Your task to perform on an android device: Do I have any events tomorrow? Image 0: 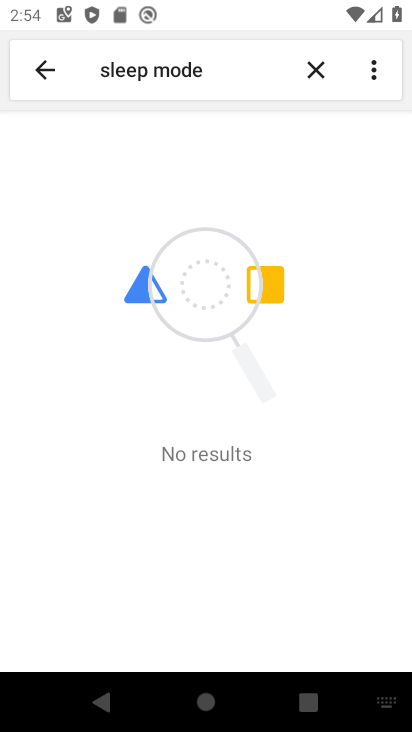
Step 0: press home button
Your task to perform on an android device: Do I have any events tomorrow? Image 1: 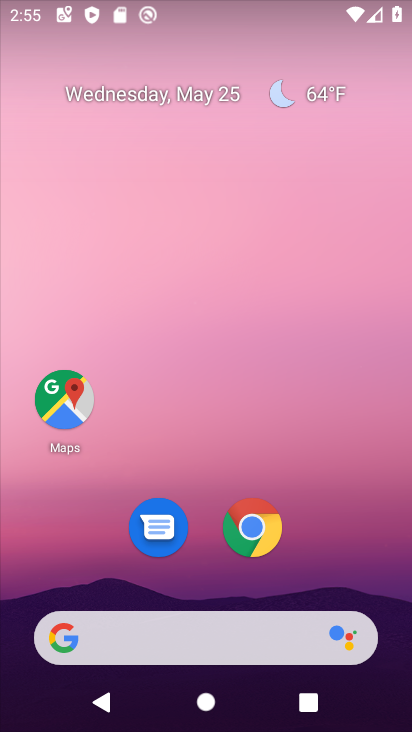
Step 1: drag from (210, 519) to (272, 80)
Your task to perform on an android device: Do I have any events tomorrow? Image 2: 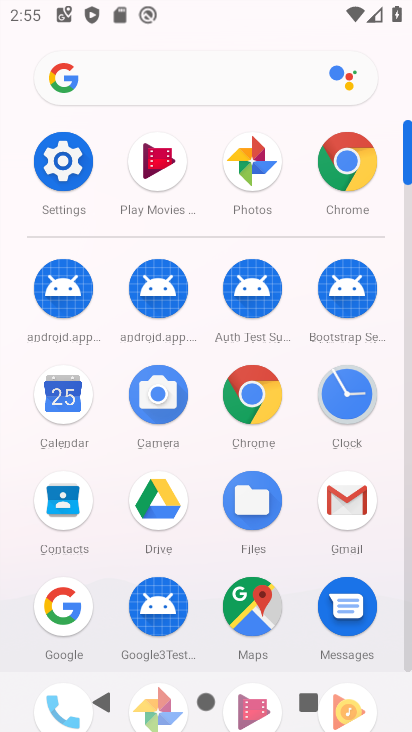
Step 2: click (68, 400)
Your task to perform on an android device: Do I have any events tomorrow? Image 3: 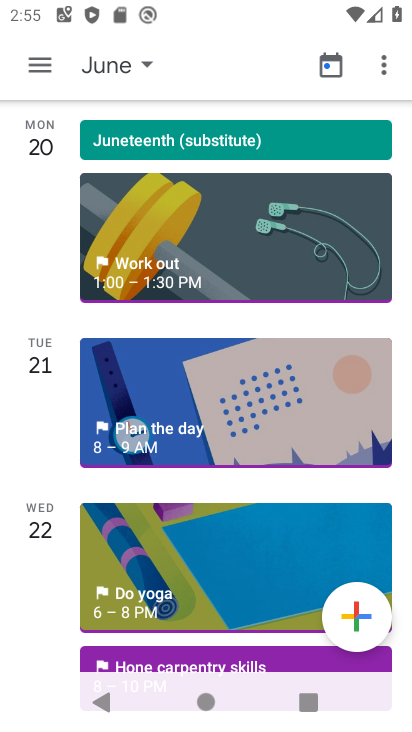
Step 3: click (110, 78)
Your task to perform on an android device: Do I have any events tomorrow? Image 4: 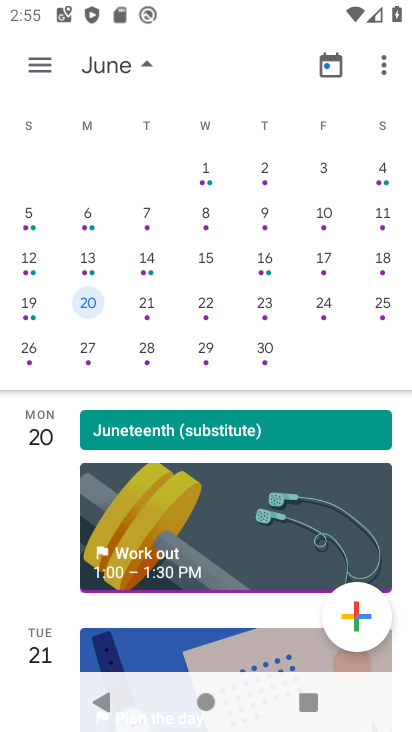
Step 4: drag from (24, 284) to (381, 263)
Your task to perform on an android device: Do I have any events tomorrow? Image 5: 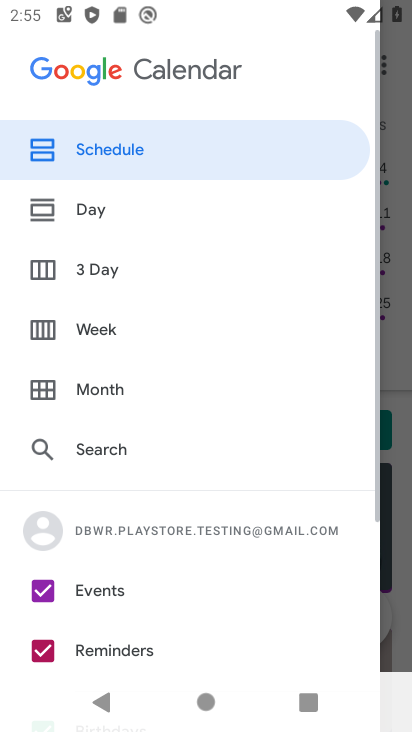
Step 5: drag from (368, 272) to (23, 258)
Your task to perform on an android device: Do I have any events tomorrow? Image 6: 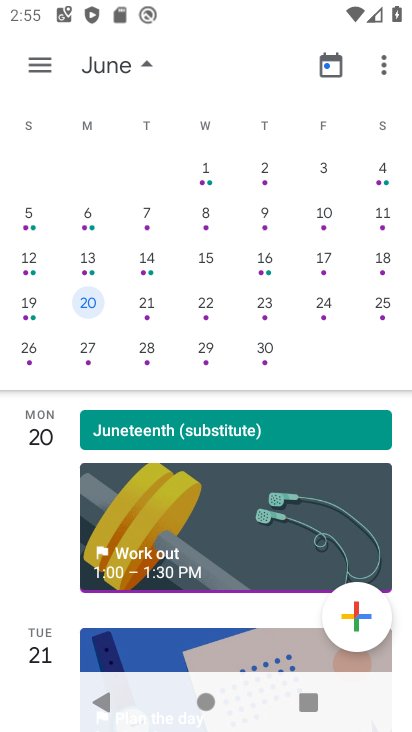
Step 6: drag from (84, 269) to (333, 272)
Your task to perform on an android device: Do I have any events tomorrow? Image 7: 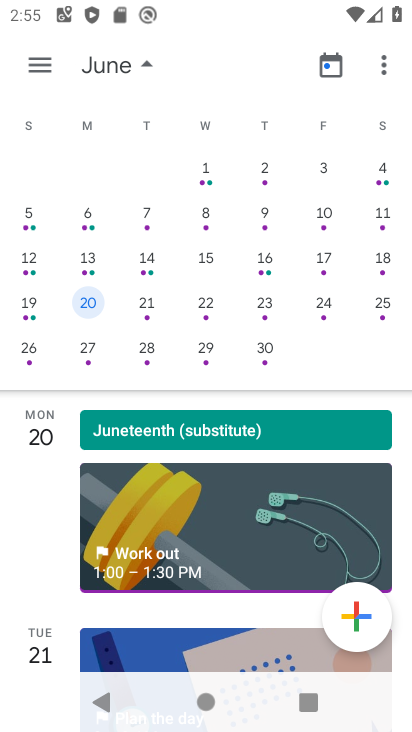
Step 7: drag from (65, 255) to (411, 236)
Your task to perform on an android device: Do I have any events tomorrow? Image 8: 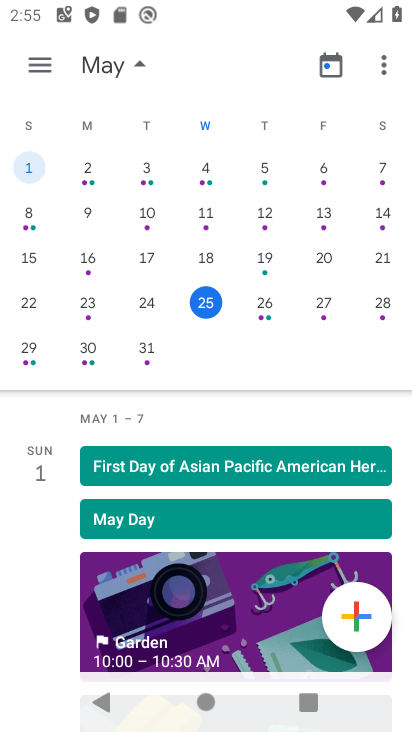
Step 8: click (199, 307)
Your task to perform on an android device: Do I have any events tomorrow? Image 9: 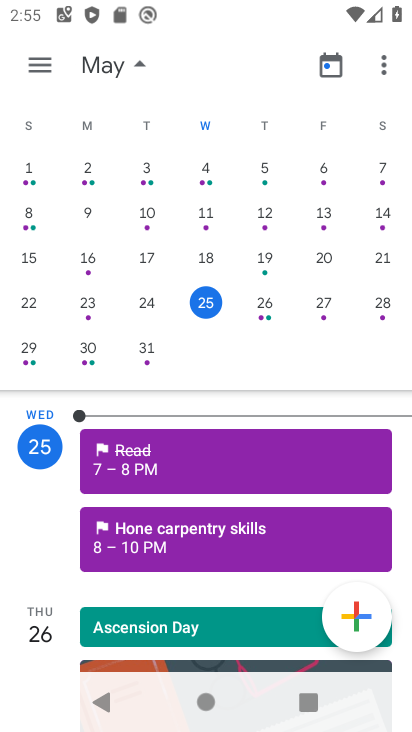
Step 9: click (154, 624)
Your task to perform on an android device: Do I have any events tomorrow? Image 10: 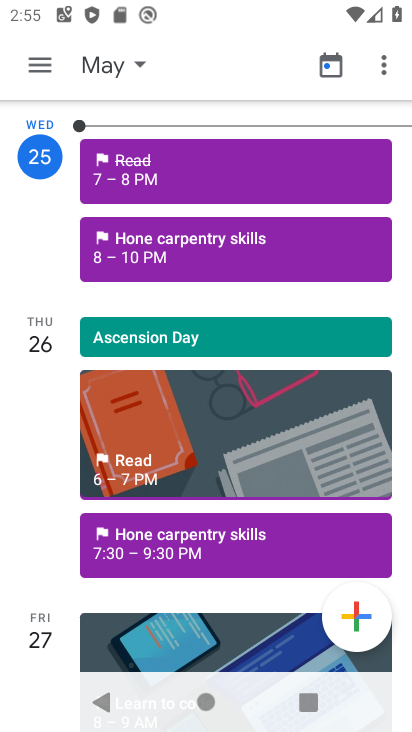
Step 10: task complete